Your task to perform on an android device: toggle notifications settings in the gmail app Image 0: 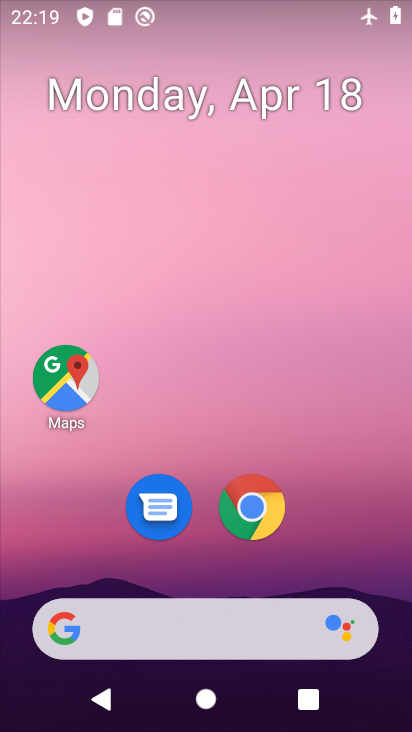
Step 0: drag from (352, 526) to (312, 91)
Your task to perform on an android device: toggle notifications settings in the gmail app Image 1: 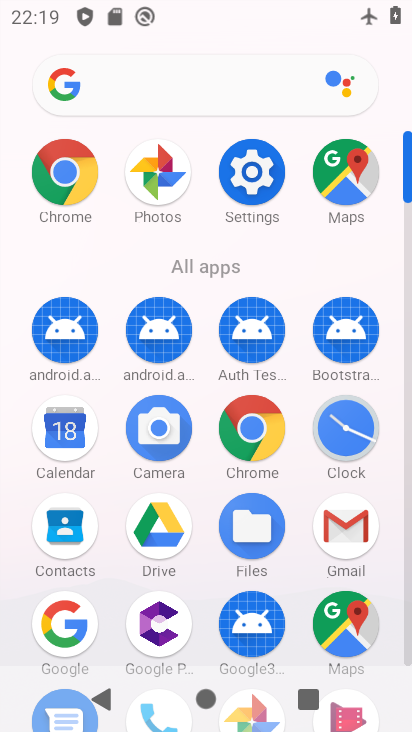
Step 1: click (341, 529)
Your task to perform on an android device: toggle notifications settings in the gmail app Image 2: 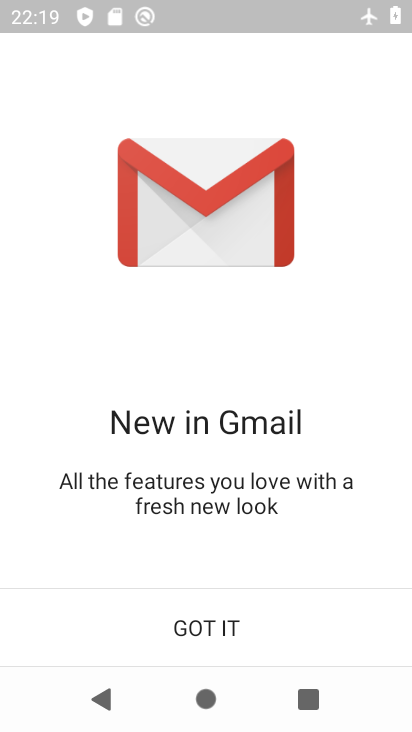
Step 2: click (236, 623)
Your task to perform on an android device: toggle notifications settings in the gmail app Image 3: 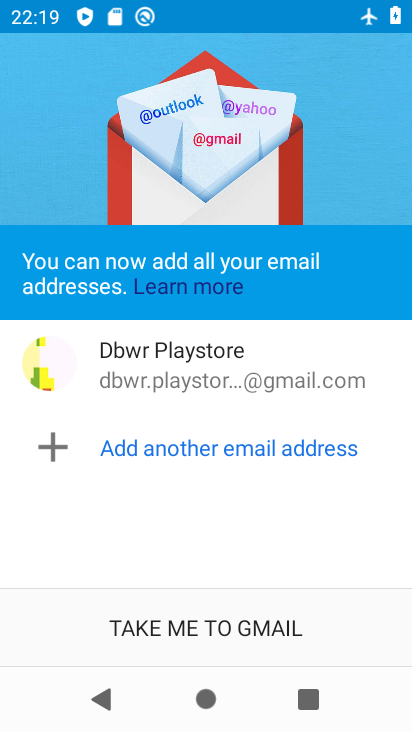
Step 3: click (236, 623)
Your task to perform on an android device: toggle notifications settings in the gmail app Image 4: 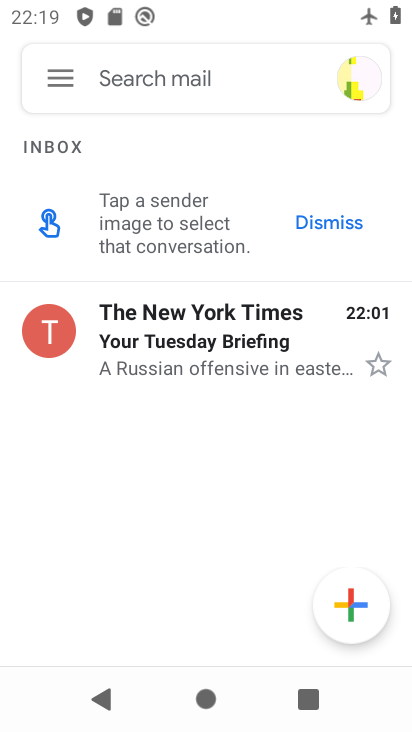
Step 4: click (60, 74)
Your task to perform on an android device: toggle notifications settings in the gmail app Image 5: 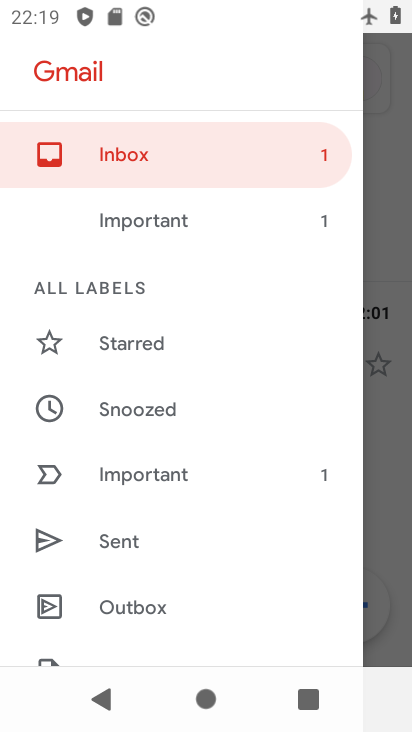
Step 5: drag from (193, 553) to (239, 172)
Your task to perform on an android device: toggle notifications settings in the gmail app Image 6: 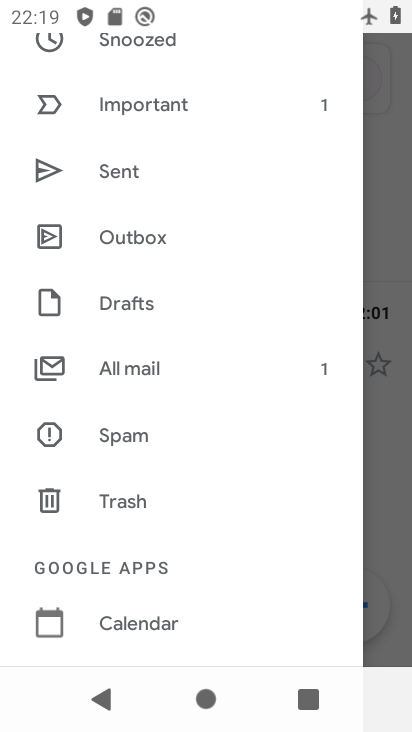
Step 6: drag from (199, 614) to (253, 247)
Your task to perform on an android device: toggle notifications settings in the gmail app Image 7: 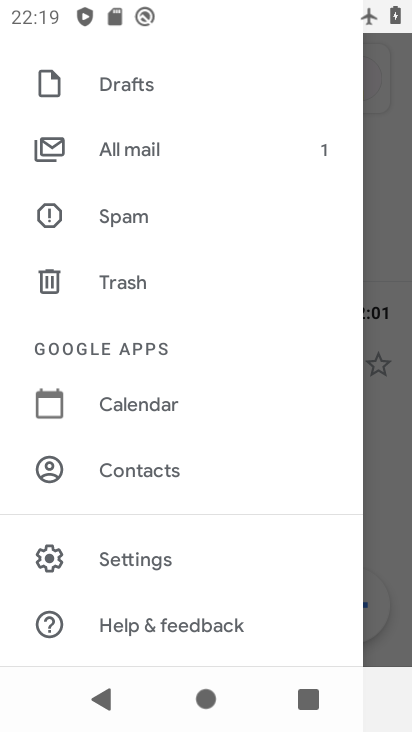
Step 7: click (178, 553)
Your task to perform on an android device: toggle notifications settings in the gmail app Image 8: 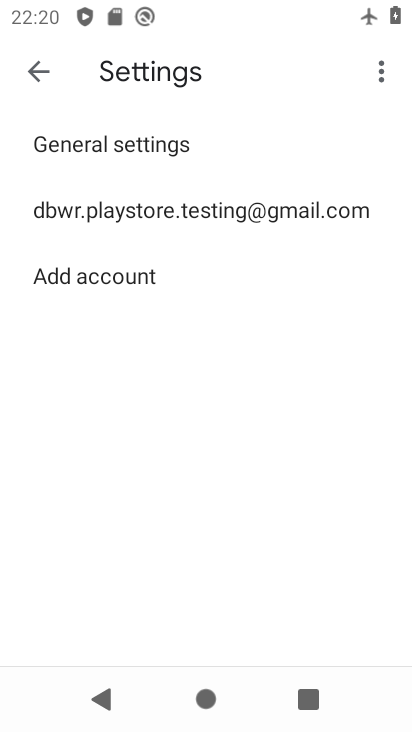
Step 8: click (310, 204)
Your task to perform on an android device: toggle notifications settings in the gmail app Image 9: 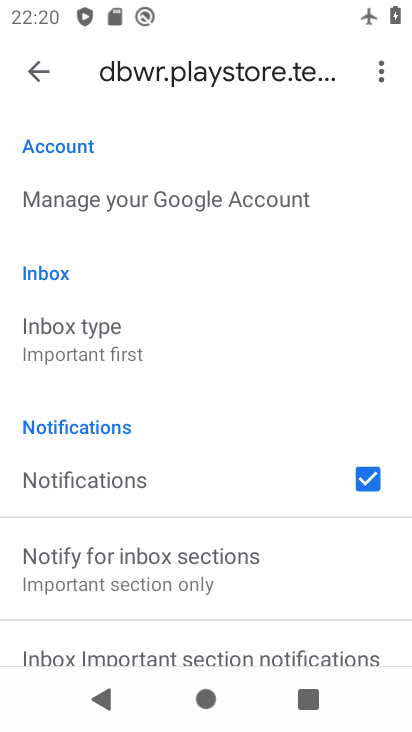
Step 9: drag from (279, 568) to (301, 168)
Your task to perform on an android device: toggle notifications settings in the gmail app Image 10: 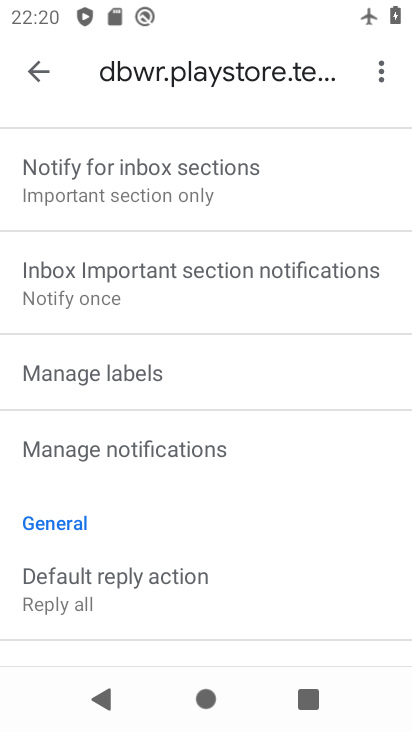
Step 10: click (218, 442)
Your task to perform on an android device: toggle notifications settings in the gmail app Image 11: 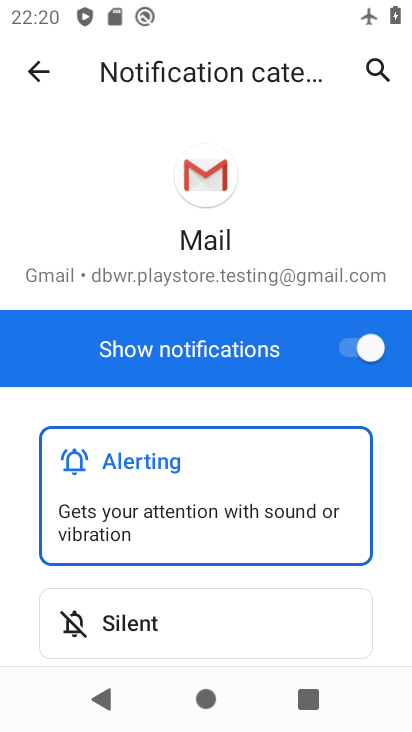
Step 11: click (342, 345)
Your task to perform on an android device: toggle notifications settings in the gmail app Image 12: 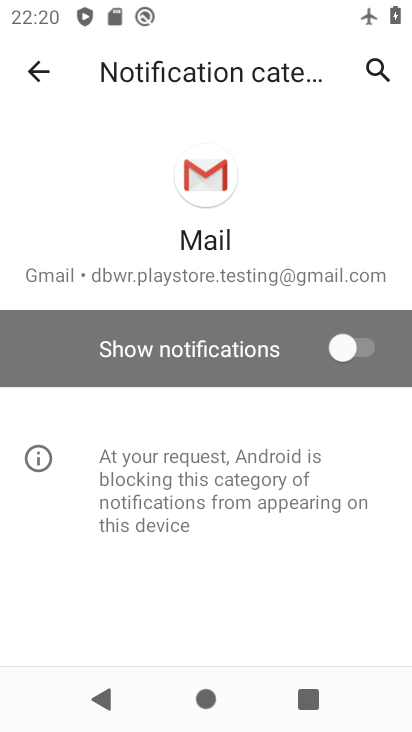
Step 12: task complete